Your task to perform on an android device: Open my contact list Image 0: 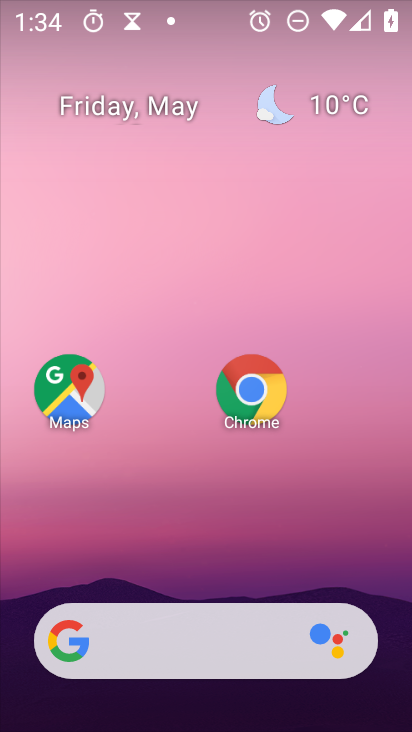
Step 0: drag from (187, 626) to (281, 139)
Your task to perform on an android device: Open my contact list Image 1: 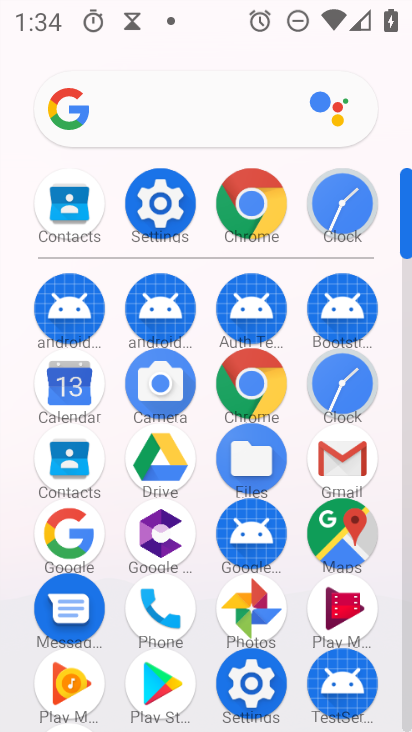
Step 1: click (81, 467)
Your task to perform on an android device: Open my contact list Image 2: 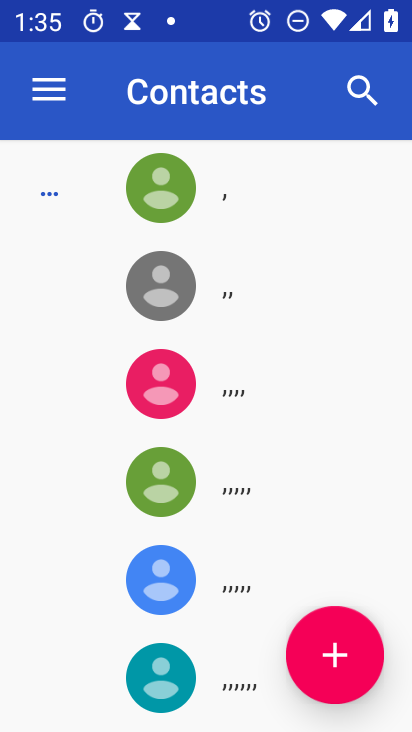
Step 2: task complete